Your task to perform on an android device: Open notification settings Image 0: 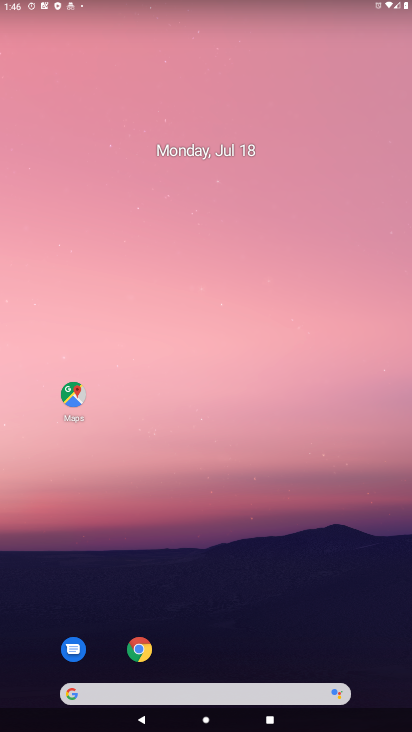
Step 0: drag from (232, 670) to (256, 98)
Your task to perform on an android device: Open notification settings Image 1: 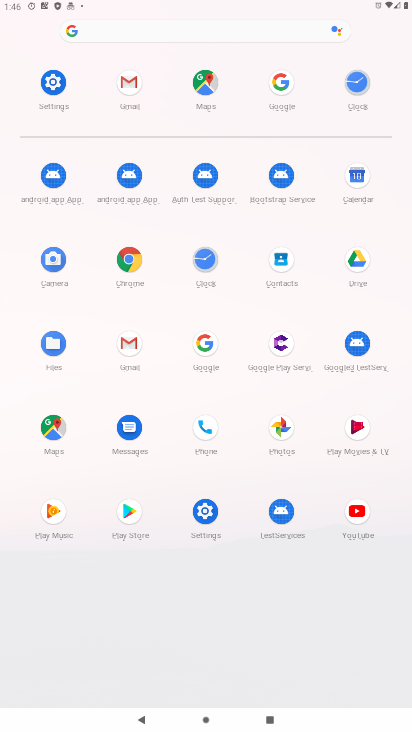
Step 1: click (48, 74)
Your task to perform on an android device: Open notification settings Image 2: 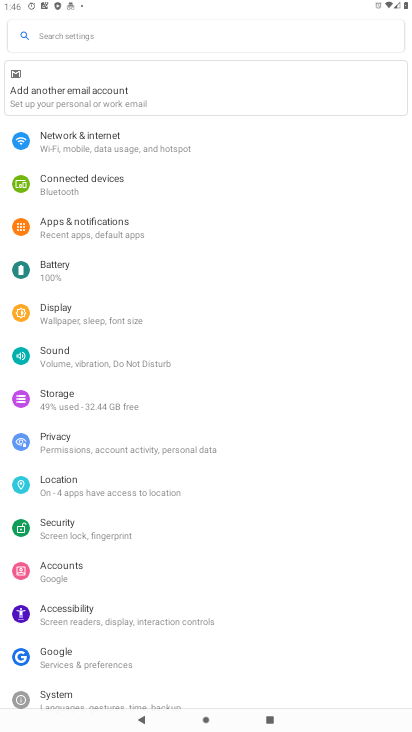
Step 2: click (64, 208)
Your task to perform on an android device: Open notification settings Image 3: 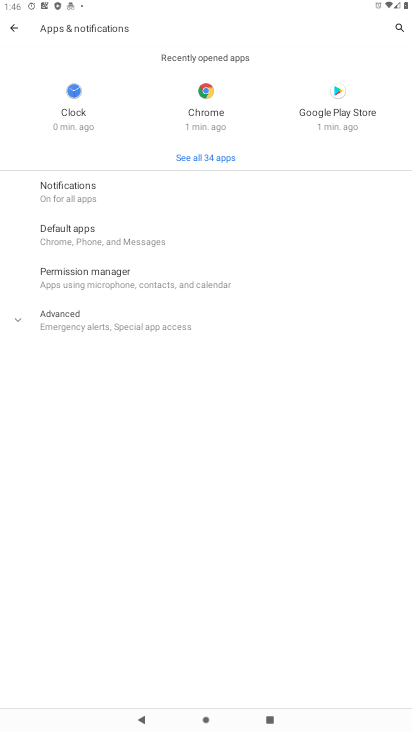
Step 3: click (60, 204)
Your task to perform on an android device: Open notification settings Image 4: 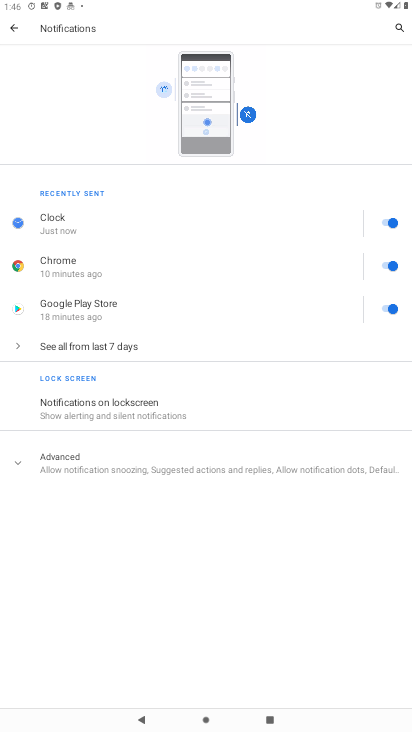
Step 4: task complete